Your task to perform on an android device: Clear all items from cart on walmart.com. Add "usb-a" to the cart on walmart.com Image 0: 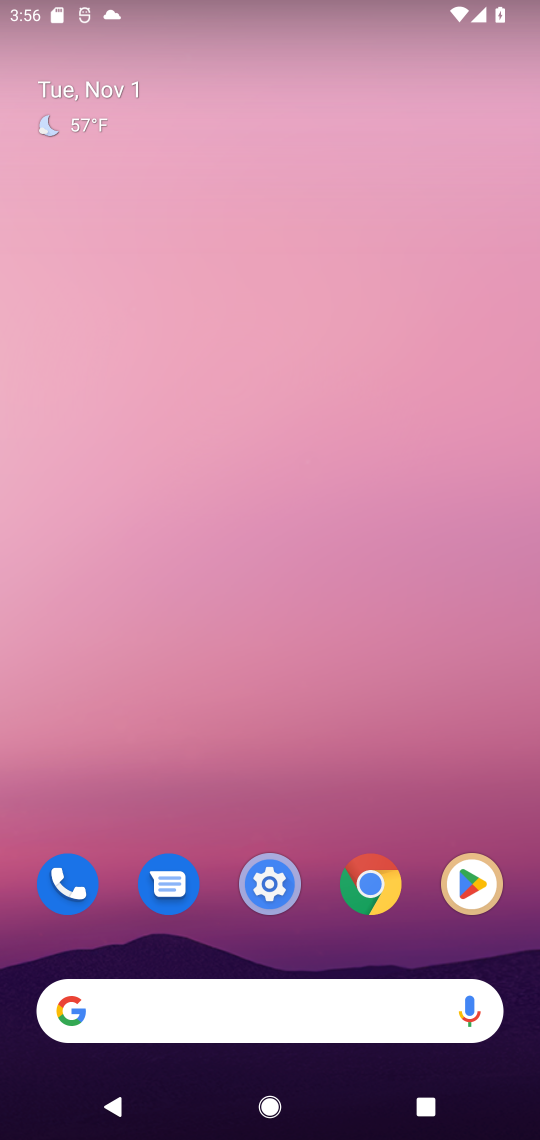
Step 0: press home button
Your task to perform on an android device: Clear all items from cart on walmart.com. Add "usb-a" to the cart on walmart.com Image 1: 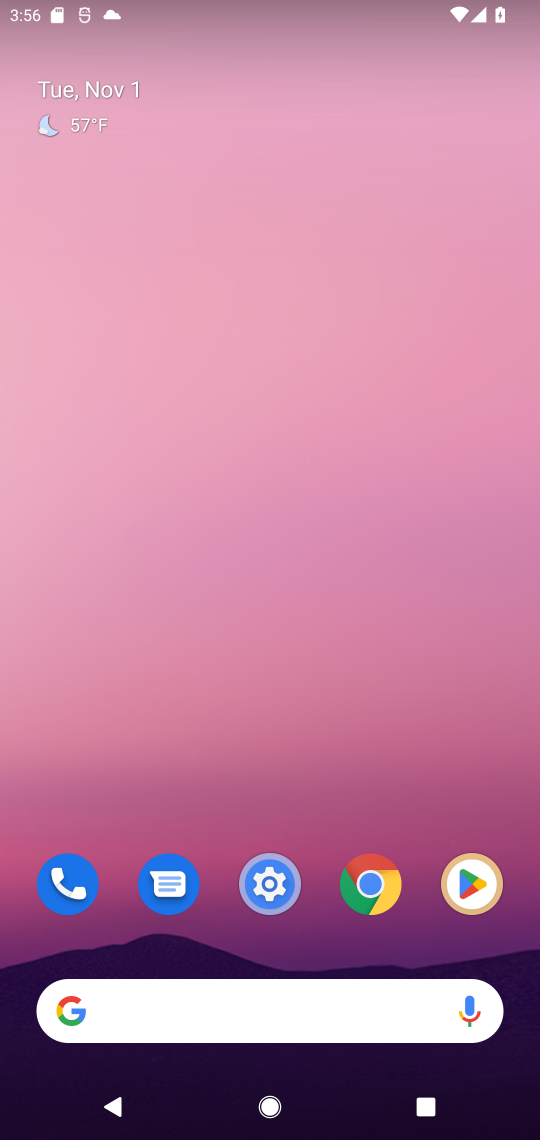
Step 1: click (102, 1016)
Your task to perform on an android device: Clear all items from cart on walmart.com. Add "usb-a" to the cart on walmart.com Image 2: 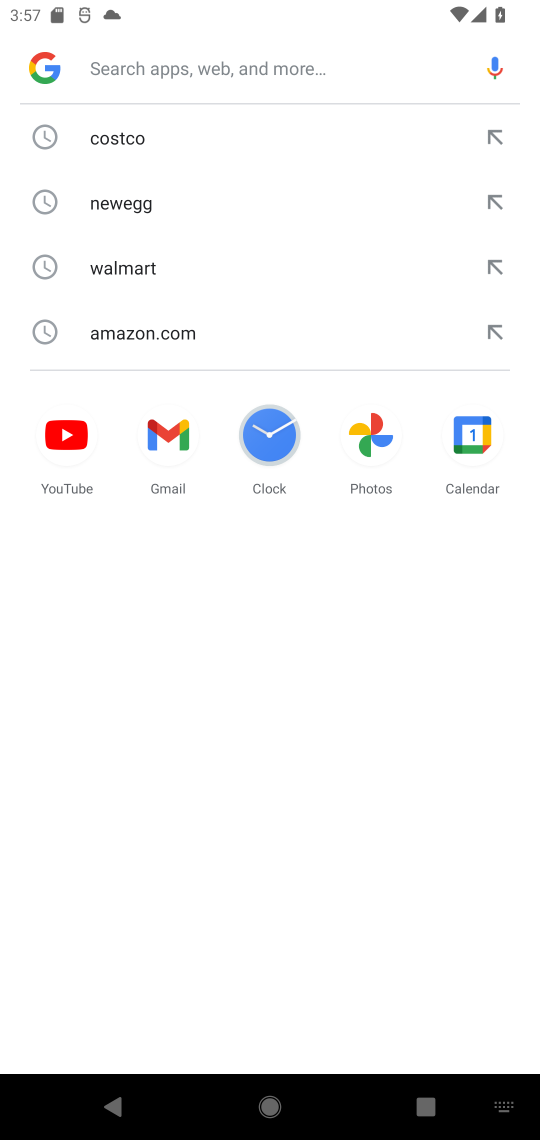
Step 2: type "walmart.com."
Your task to perform on an android device: Clear all items from cart on walmart.com. Add "usb-a" to the cart on walmart.com Image 3: 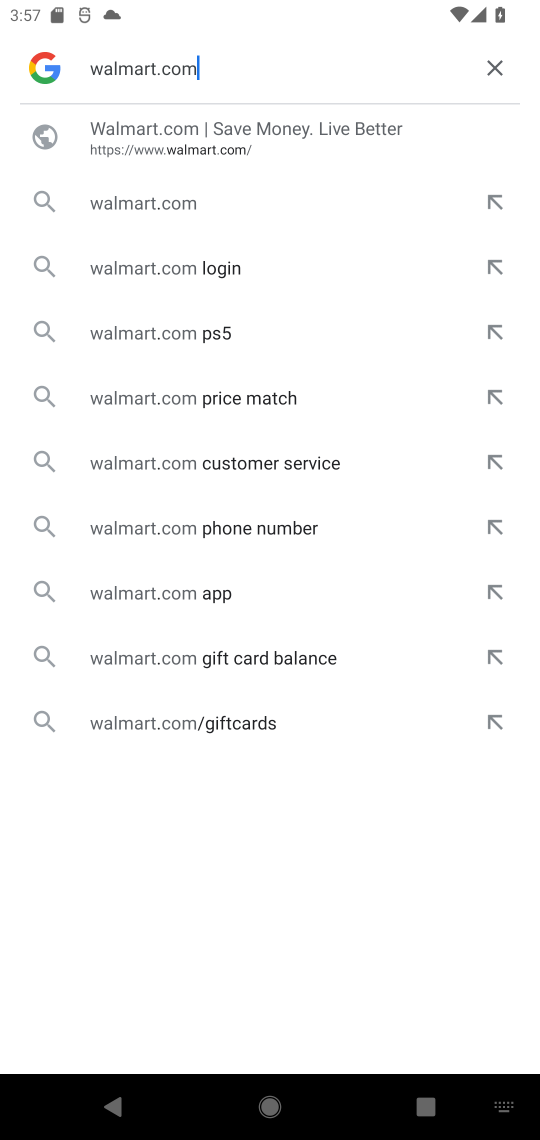
Step 3: press enter
Your task to perform on an android device: Clear all items from cart on walmart.com. Add "usb-a" to the cart on walmart.com Image 4: 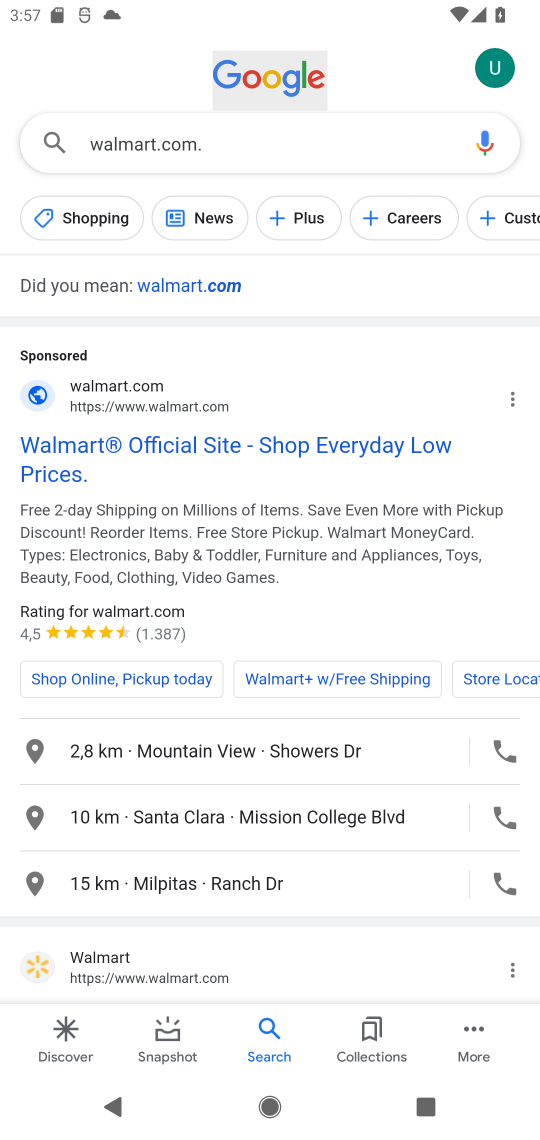
Step 4: click (173, 443)
Your task to perform on an android device: Clear all items from cart on walmart.com. Add "usb-a" to the cart on walmart.com Image 5: 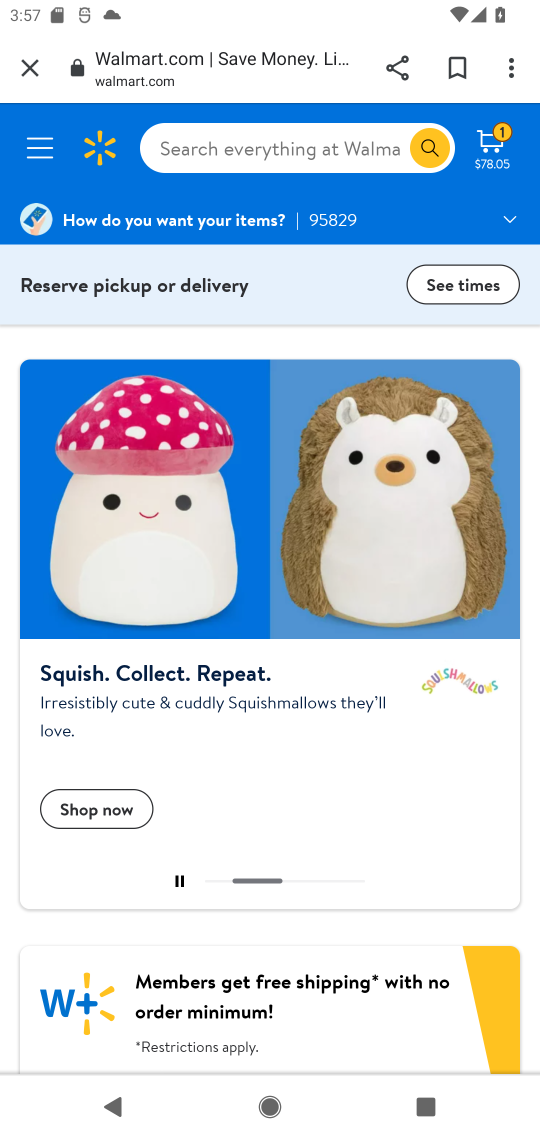
Step 5: click (204, 144)
Your task to perform on an android device: Clear all items from cart on walmart.com. Add "usb-a" to the cart on walmart.com Image 6: 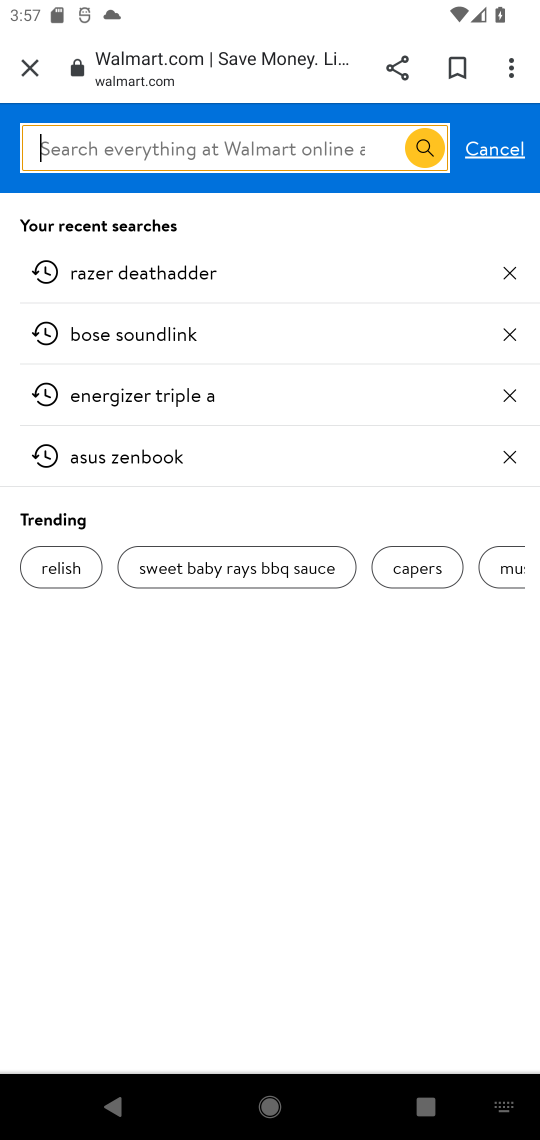
Step 6: click (522, 148)
Your task to perform on an android device: Clear all items from cart on walmart.com. Add "usb-a" to the cart on walmart.com Image 7: 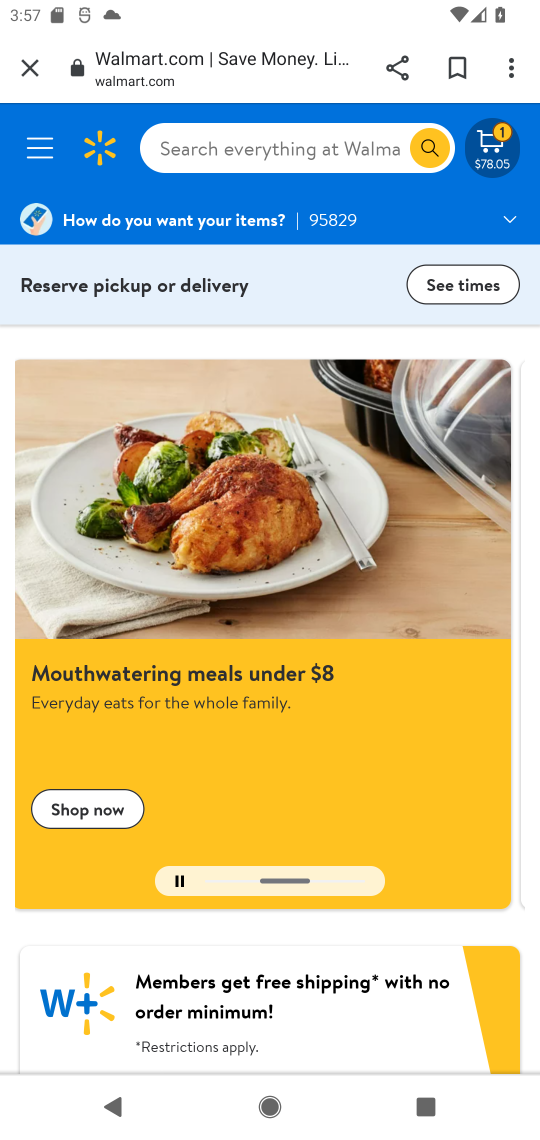
Step 7: click (498, 144)
Your task to perform on an android device: Clear all items from cart on walmart.com. Add "usb-a" to the cart on walmart.com Image 8: 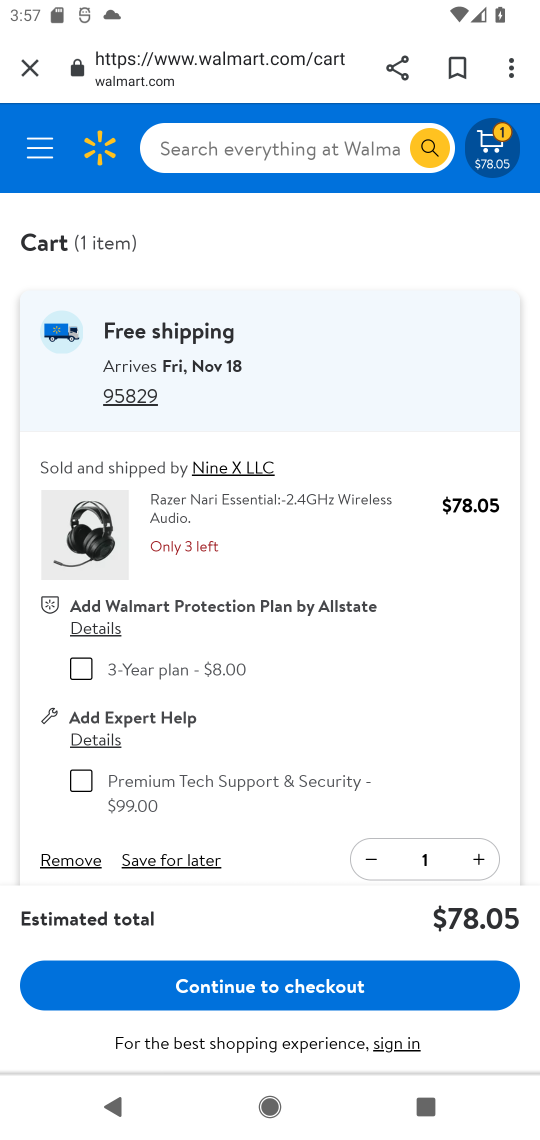
Step 8: click (52, 864)
Your task to perform on an android device: Clear all items from cart on walmart.com. Add "usb-a" to the cart on walmart.com Image 9: 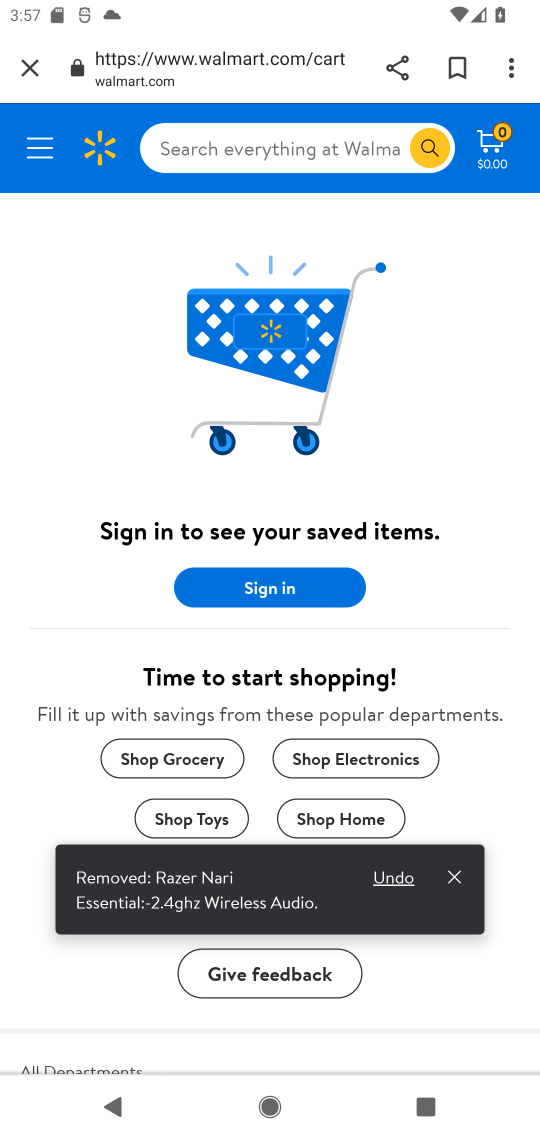
Step 9: click (212, 145)
Your task to perform on an android device: Clear all items from cart on walmart.com. Add "usb-a" to the cart on walmart.com Image 10: 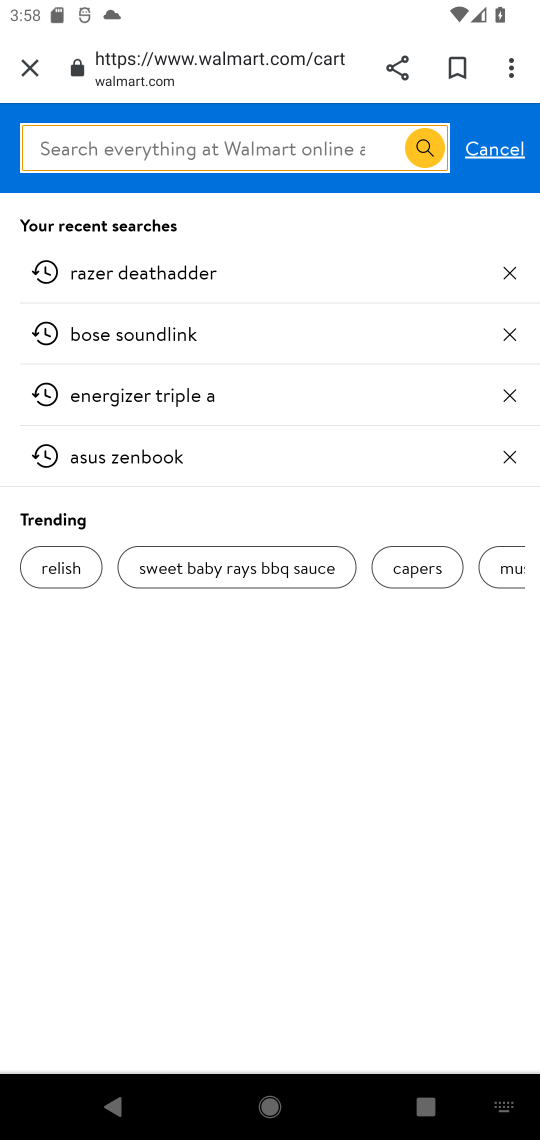
Step 10: type "usb-a"
Your task to perform on an android device: Clear all items from cart on walmart.com. Add "usb-a" to the cart on walmart.com Image 11: 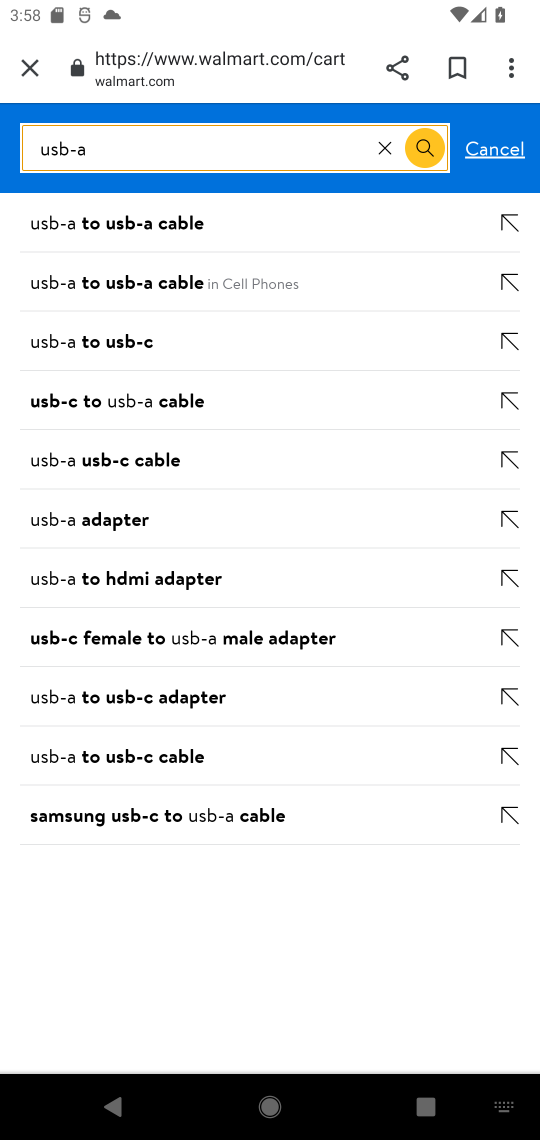
Step 11: click (424, 148)
Your task to perform on an android device: Clear all items from cart on walmart.com. Add "usb-a" to the cart on walmart.com Image 12: 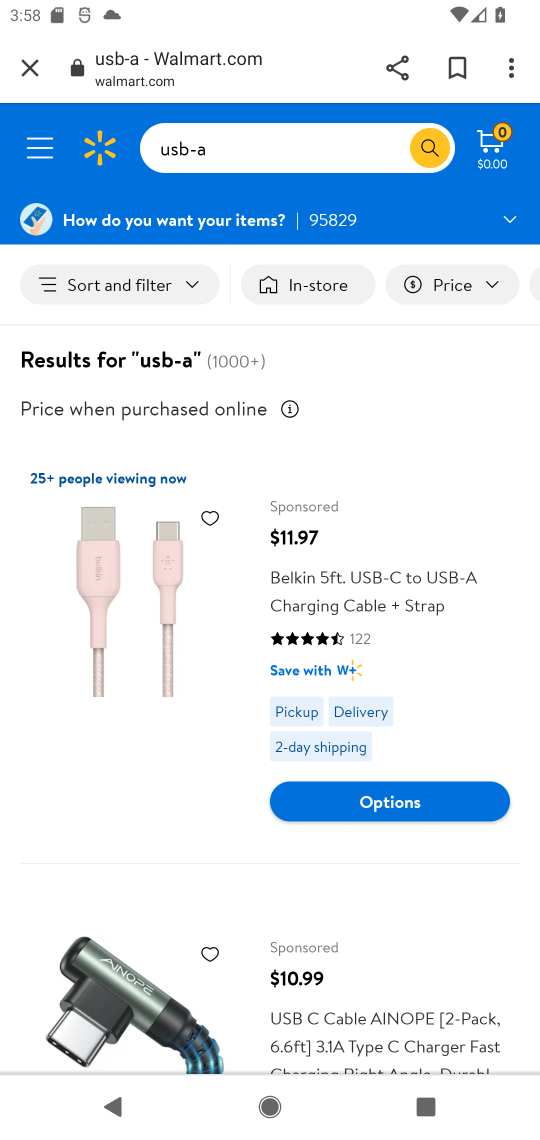
Step 12: drag from (371, 891) to (401, 658)
Your task to perform on an android device: Clear all items from cart on walmart.com. Add "usb-a" to the cart on walmart.com Image 13: 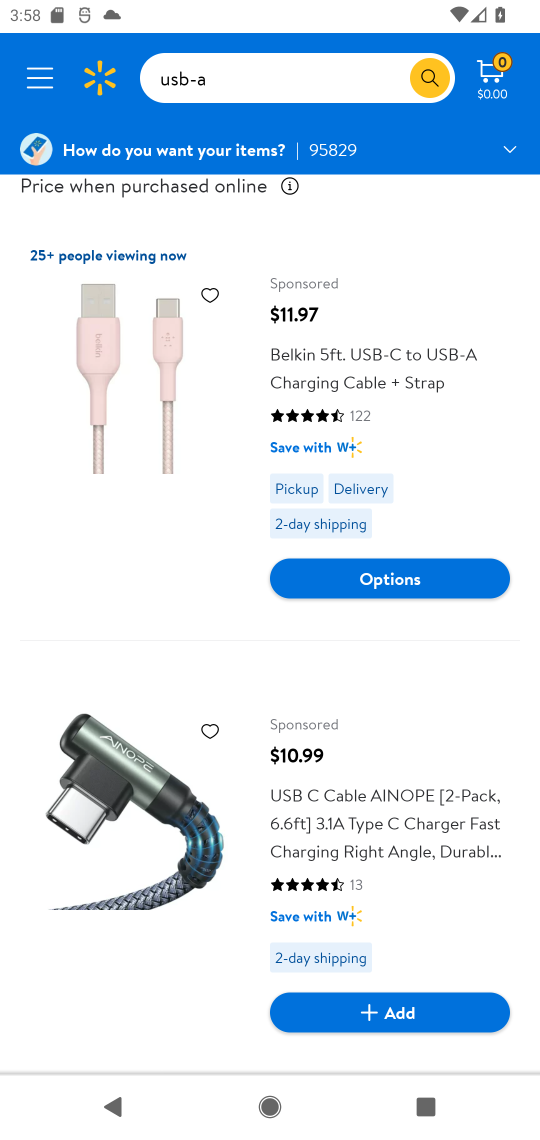
Step 13: drag from (376, 864) to (381, 458)
Your task to perform on an android device: Clear all items from cart on walmart.com. Add "usb-a" to the cart on walmart.com Image 14: 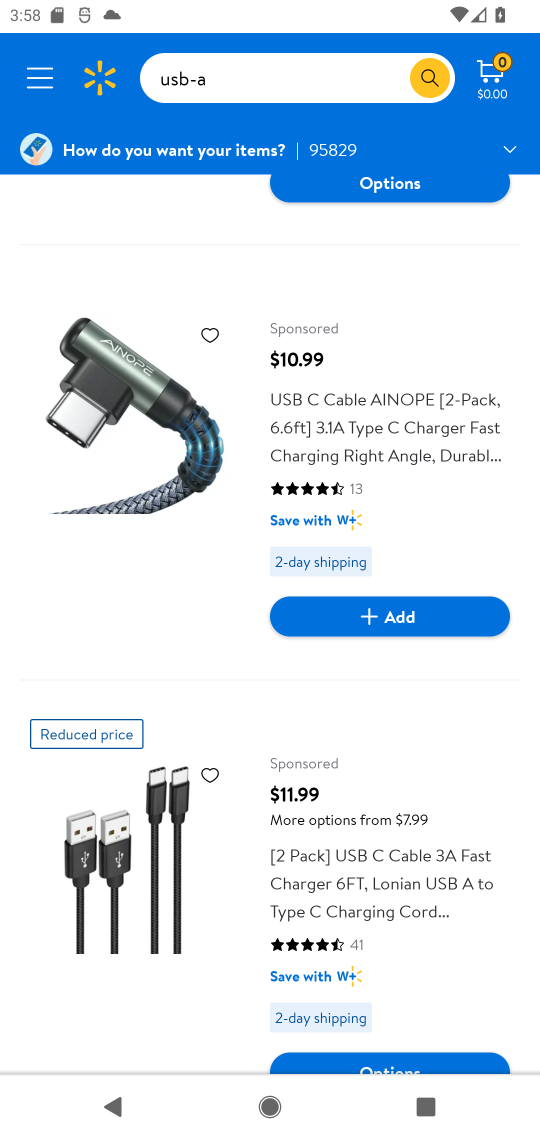
Step 14: drag from (393, 918) to (398, 424)
Your task to perform on an android device: Clear all items from cart on walmart.com. Add "usb-a" to the cart on walmart.com Image 15: 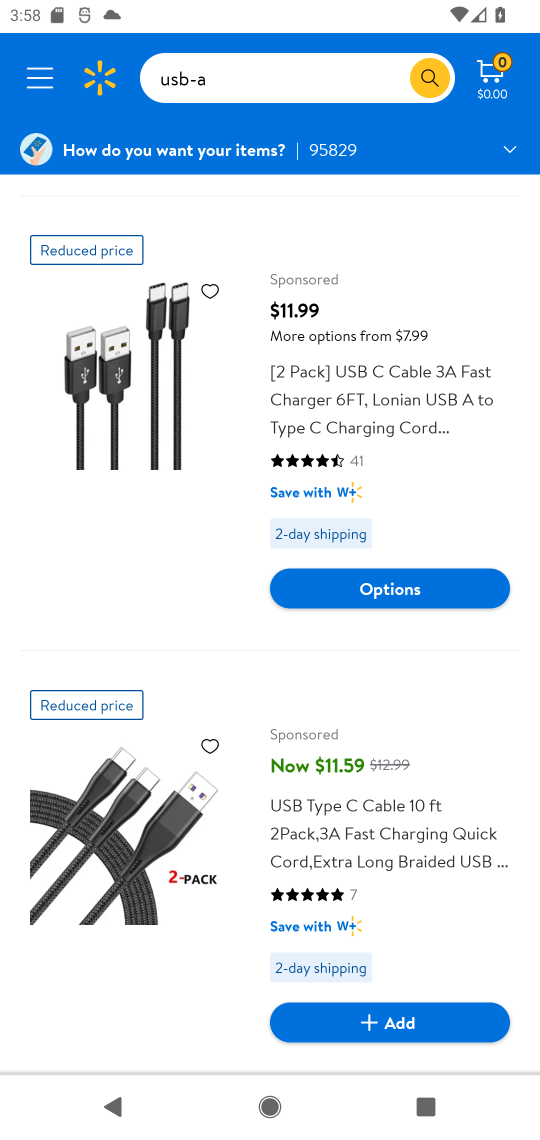
Step 15: drag from (203, 909) to (244, 339)
Your task to perform on an android device: Clear all items from cart on walmart.com. Add "usb-a" to the cart on walmart.com Image 16: 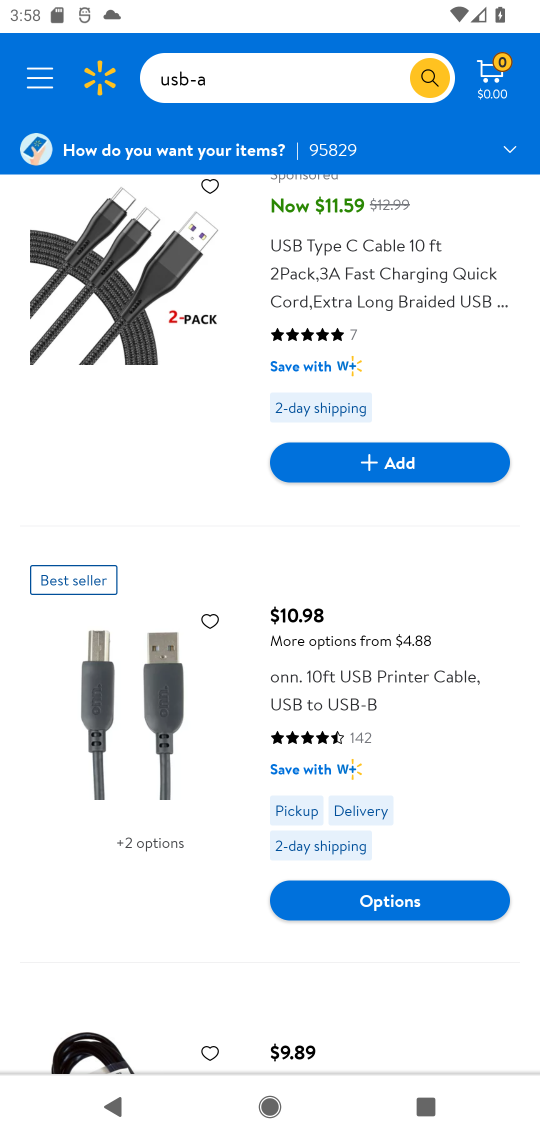
Step 16: drag from (201, 801) to (232, 383)
Your task to perform on an android device: Clear all items from cart on walmart.com. Add "usb-a" to the cart on walmart.com Image 17: 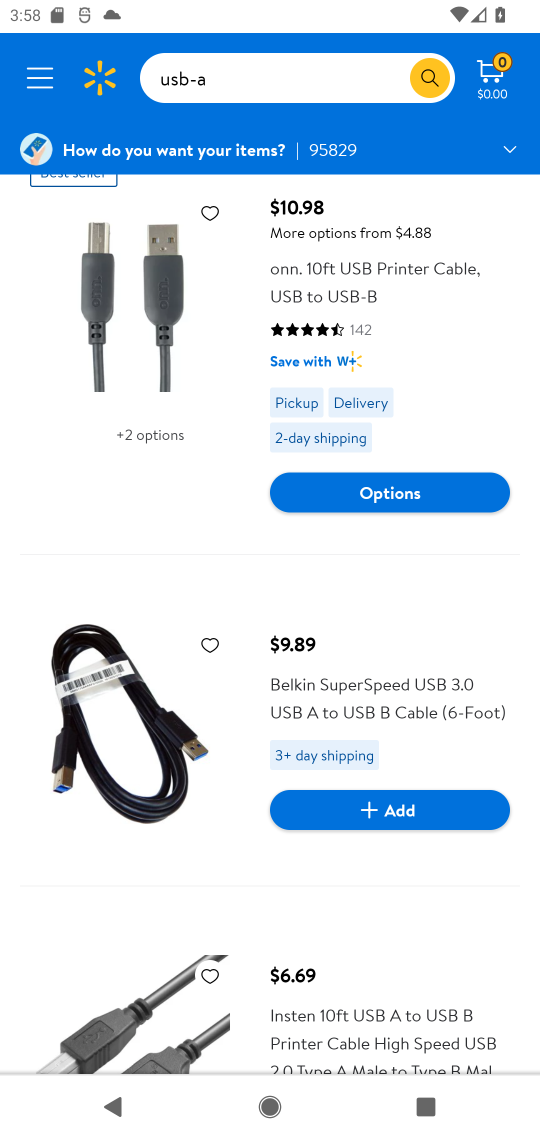
Step 17: click (404, 805)
Your task to perform on an android device: Clear all items from cart on walmart.com. Add "usb-a" to the cart on walmart.com Image 18: 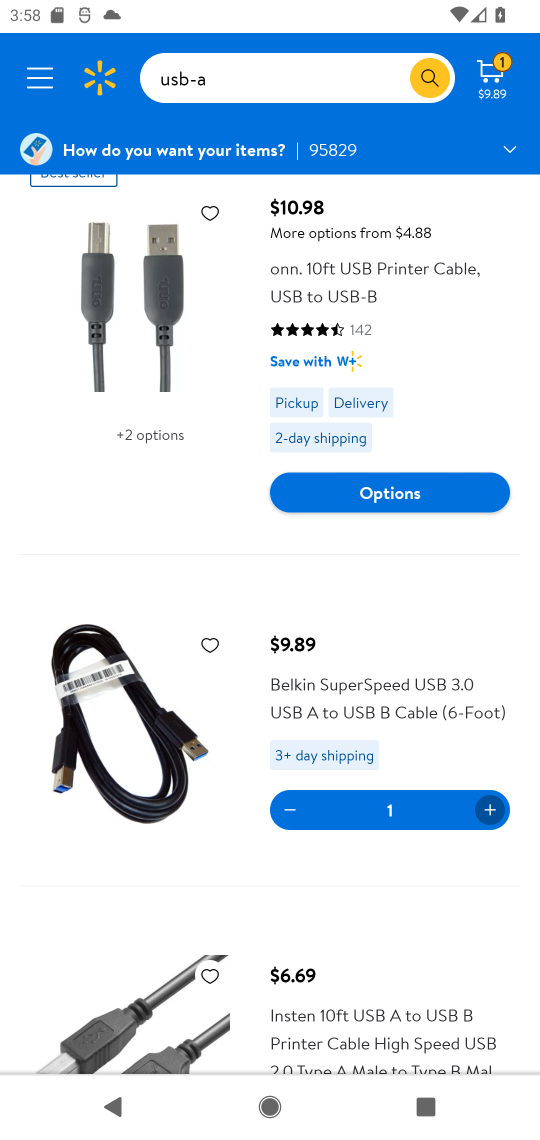
Step 18: task complete